Your task to perform on an android device: stop showing notifications on the lock screen Image 0: 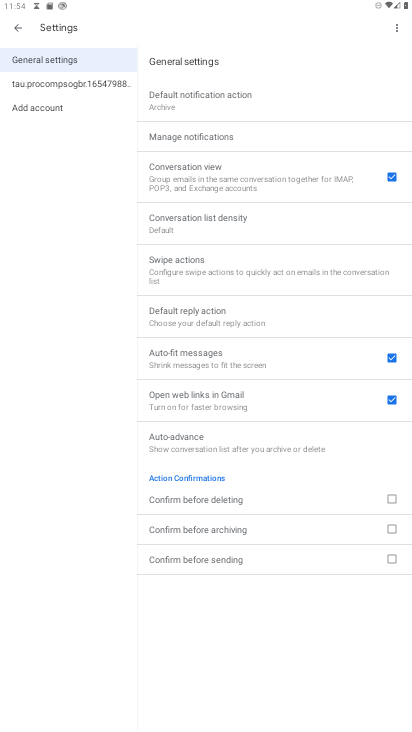
Step 0: press home button
Your task to perform on an android device: stop showing notifications on the lock screen Image 1: 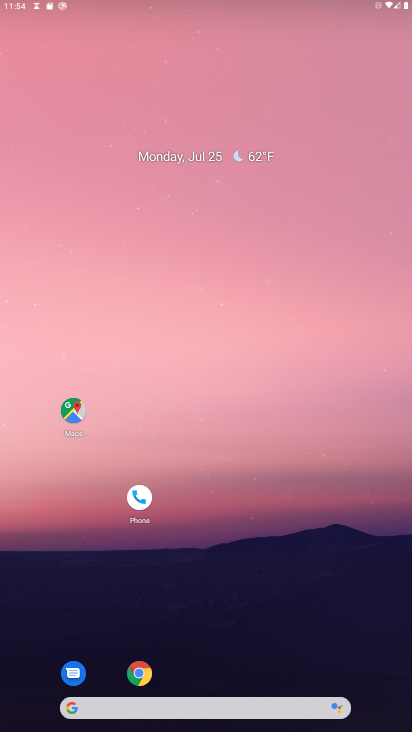
Step 1: drag from (261, 523) to (309, 36)
Your task to perform on an android device: stop showing notifications on the lock screen Image 2: 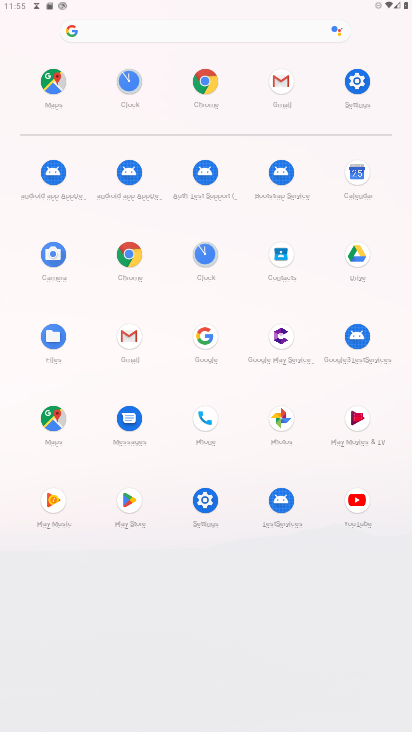
Step 2: click (350, 77)
Your task to perform on an android device: stop showing notifications on the lock screen Image 3: 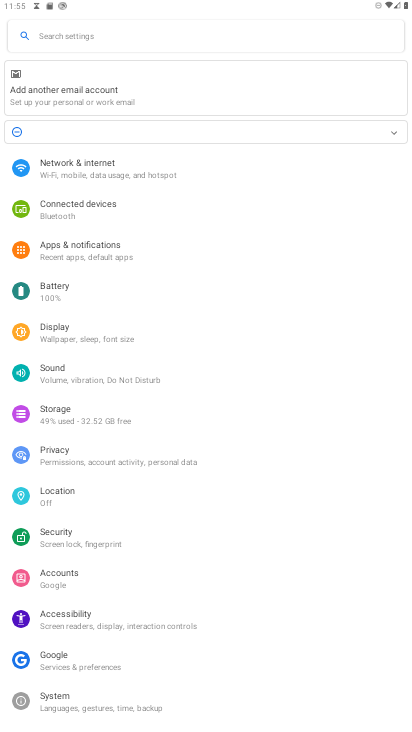
Step 3: click (78, 249)
Your task to perform on an android device: stop showing notifications on the lock screen Image 4: 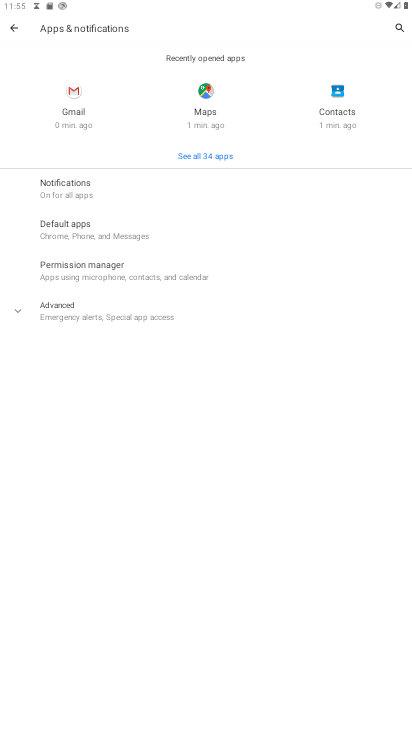
Step 4: click (44, 192)
Your task to perform on an android device: stop showing notifications on the lock screen Image 5: 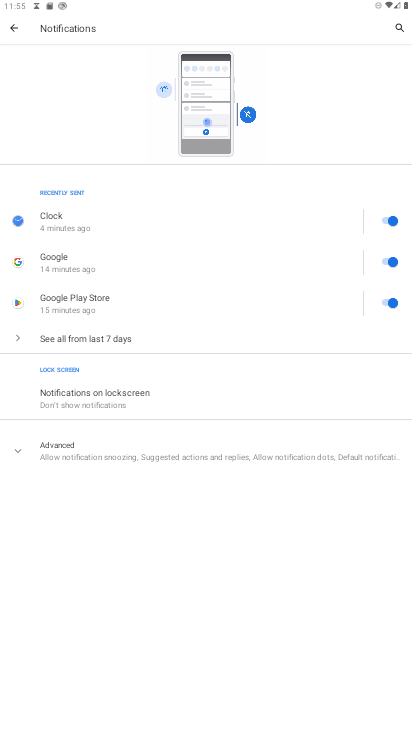
Step 5: click (63, 391)
Your task to perform on an android device: stop showing notifications on the lock screen Image 6: 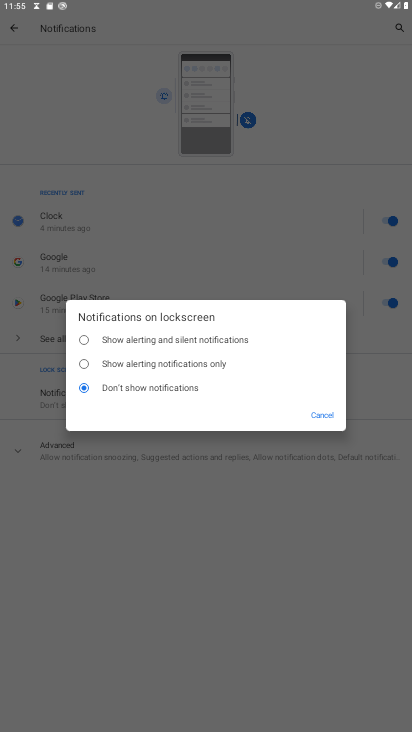
Step 6: task complete